Your task to perform on an android device: Open display settings Image 0: 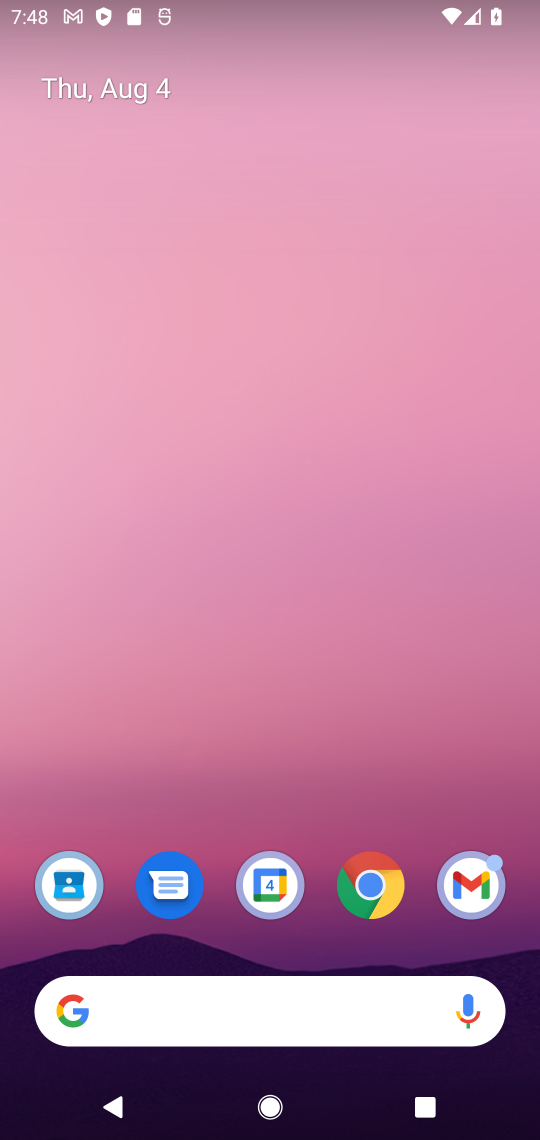
Step 0: press home button
Your task to perform on an android device: Open display settings Image 1: 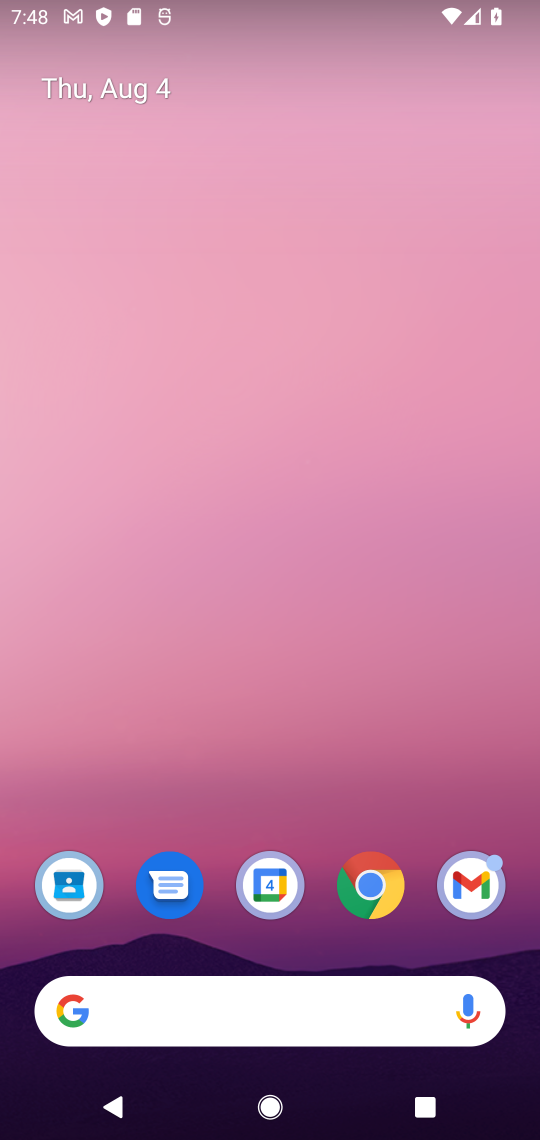
Step 1: drag from (233, 952) to (232, 106)
Your task to perform on an android device: Open display settings Image 2: 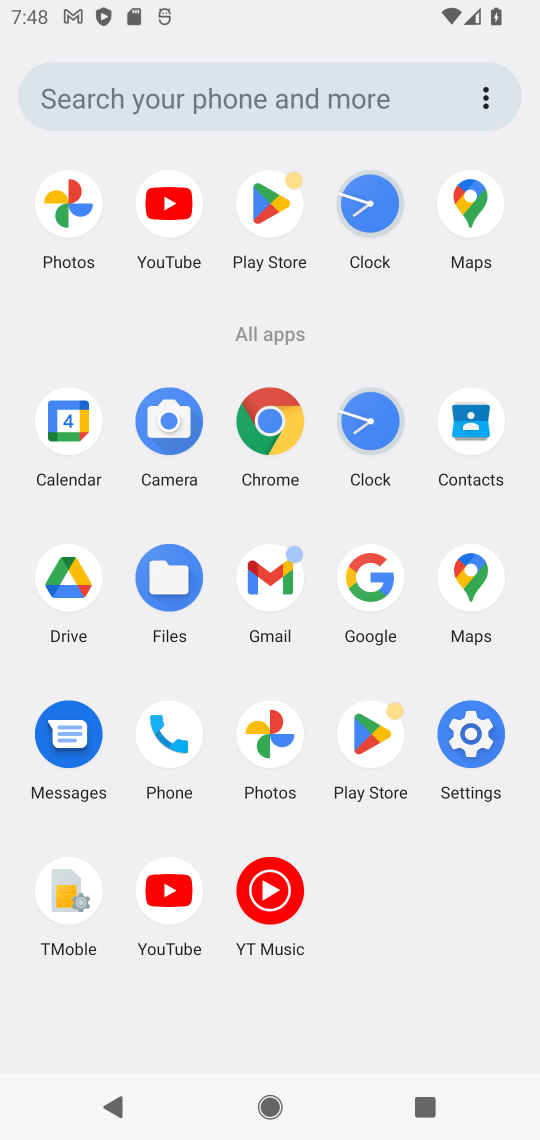
Step 2: click (508, 772)
Your task to perform on an android device: Open display settings Image 3: 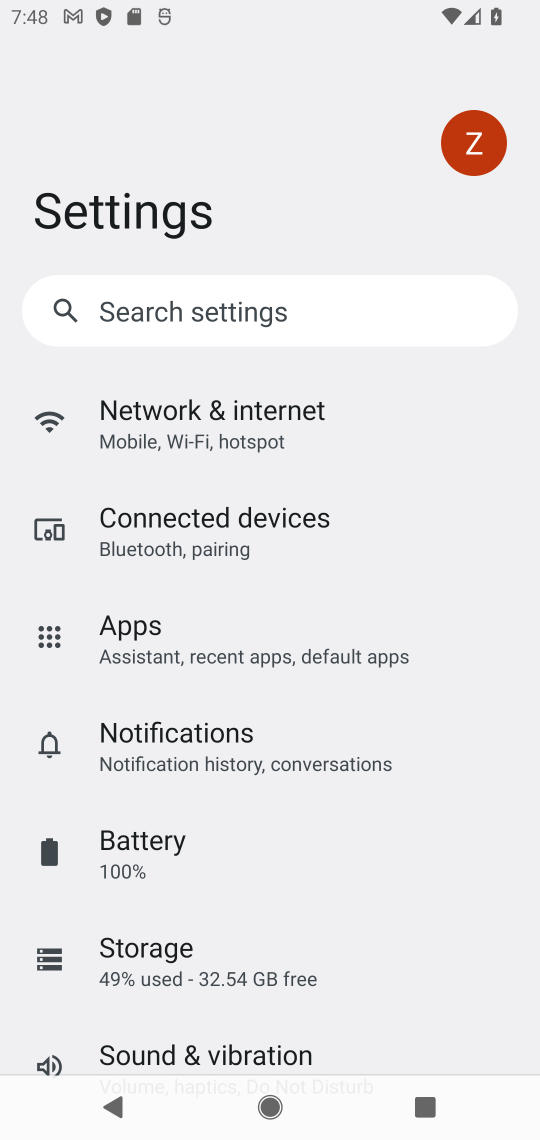
Step 3: drag from (210, 896) to (280, 196)
Your task to perform on an android device: Open display settings Image 4: 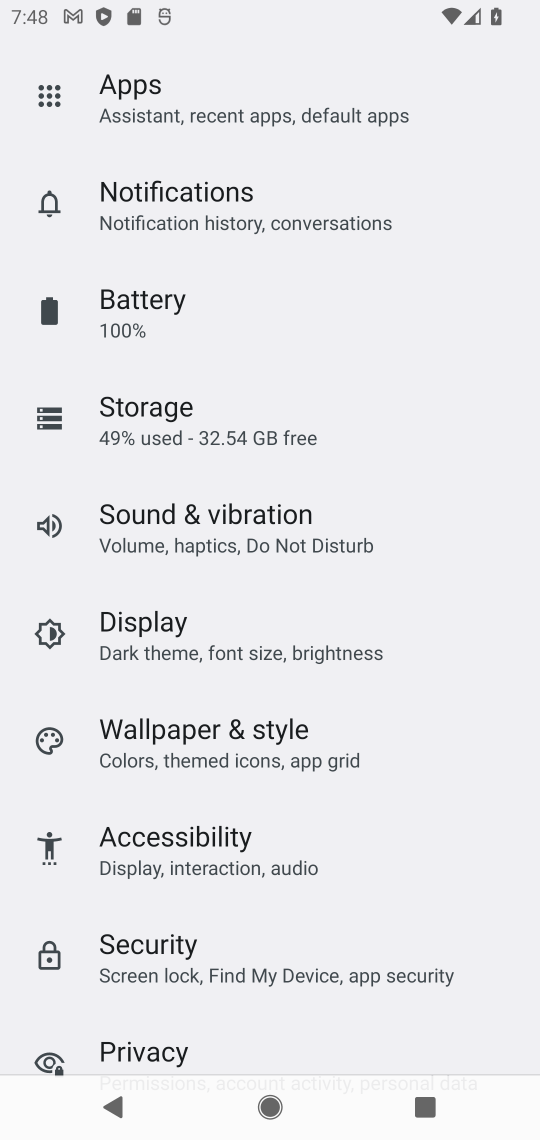
Step 4: click (227, 627)
Your task to perform on an android device: Open display settings Image 5: 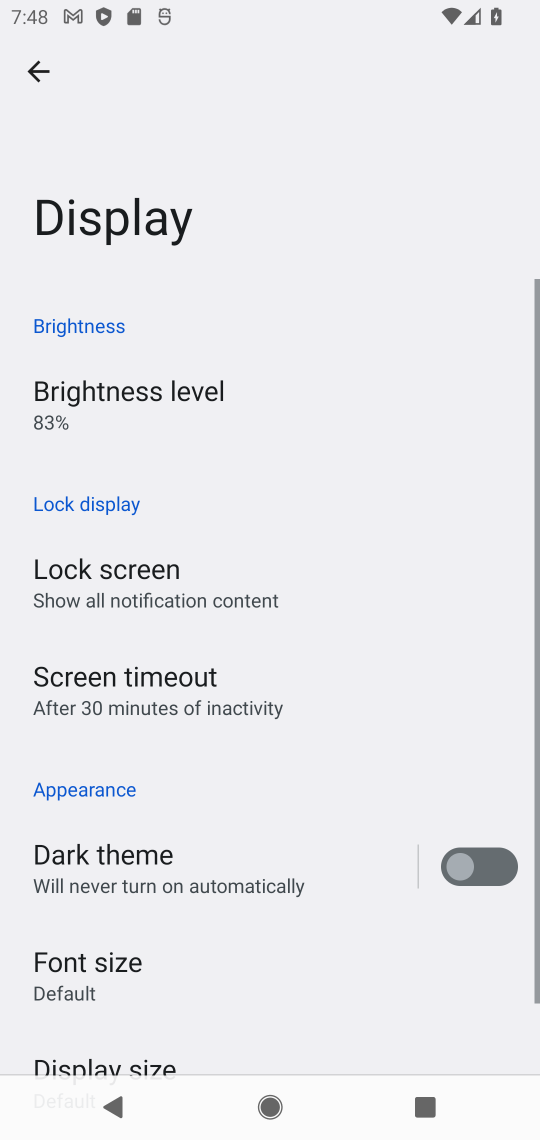
Step 5: task complete